Your task to perform on an android device: turn off improve location accuracy Image 0: 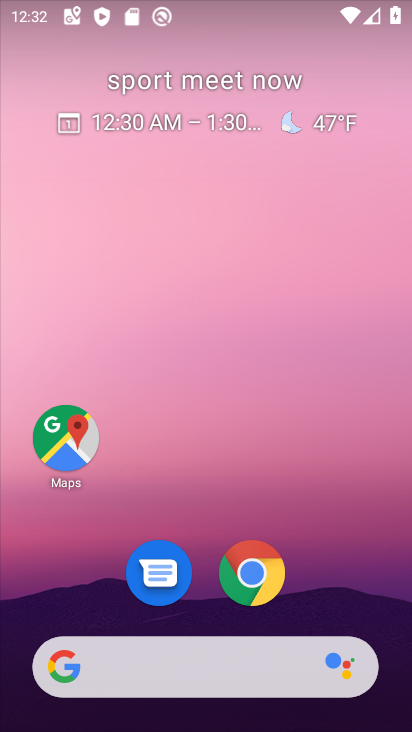
Step 0: drag from (207, 626) to (208, 187)
Your task to perform on an android device: turn off improve location accuracy Image 1: 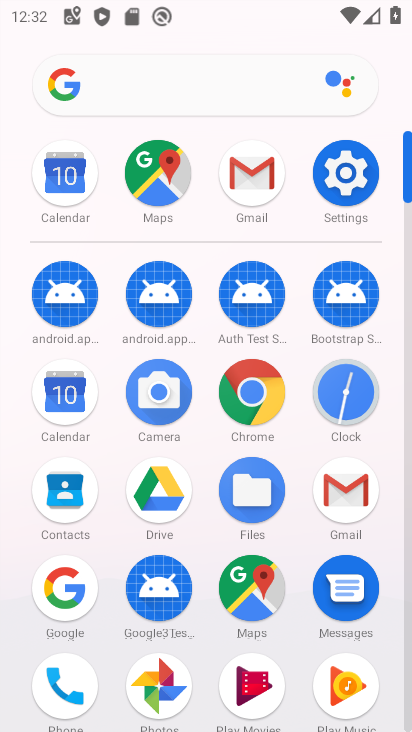
Step 1: click (340, 178)
Your task to perform on an android device: turn off improve location accuracy Image 2: 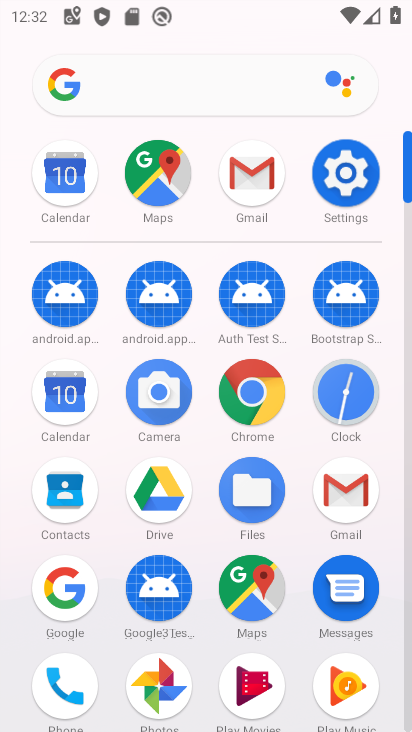
Step 2: click (340, 178)
Your task to perform on an android device: turn off improve location accuracy Image 3: 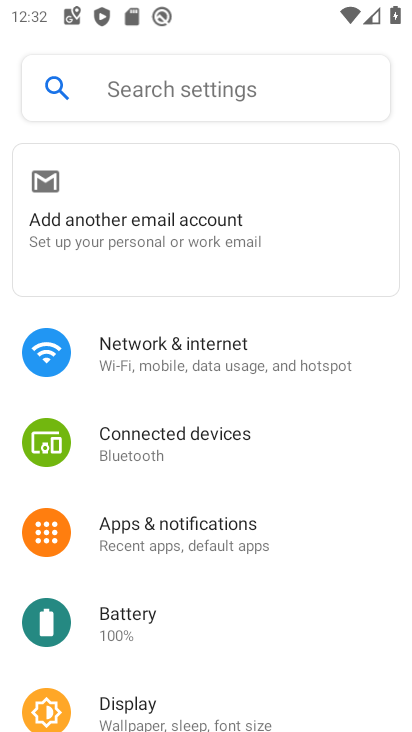
Step 3: drag from (215, 647) to (303, 235)
Your task to perform on an android device: turn off improve location accuracy Image 4: 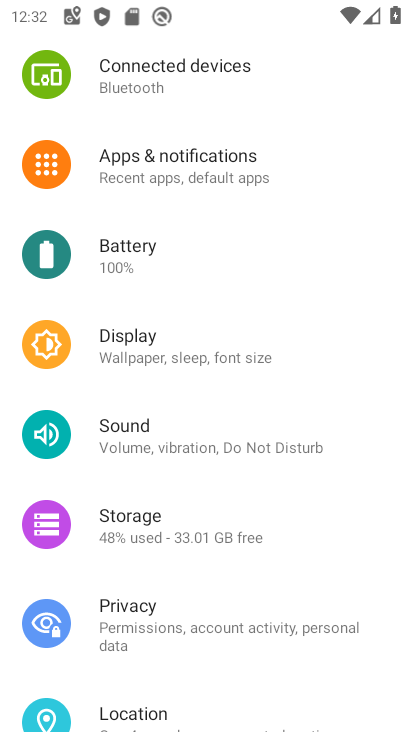
Step 4: drag from (165, 601) to (175, 405)
Your task to perform on an android device: turn off improve location accuracy Image 5: 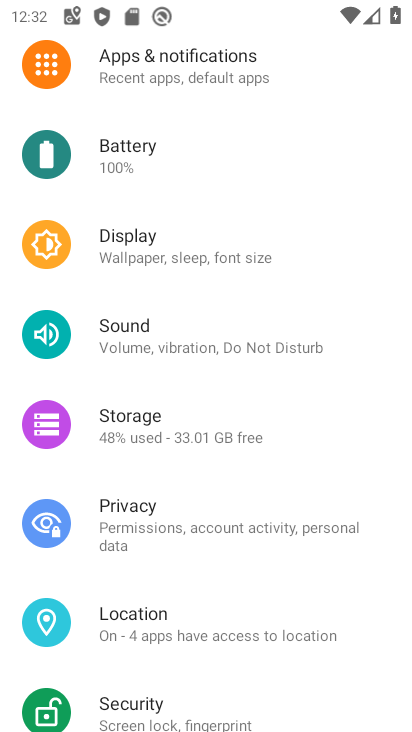
Step 5: drag from (162, 527) to (203, 315)
Your task to perform on an android device: turn off improve location accuracy Image 6: 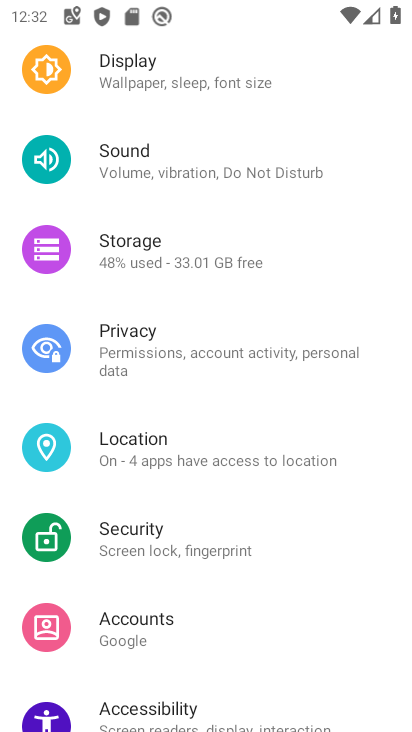
Step 6: click (147, 438)
Your task to perform on an android device: turn off improve location accuracy Image 7: 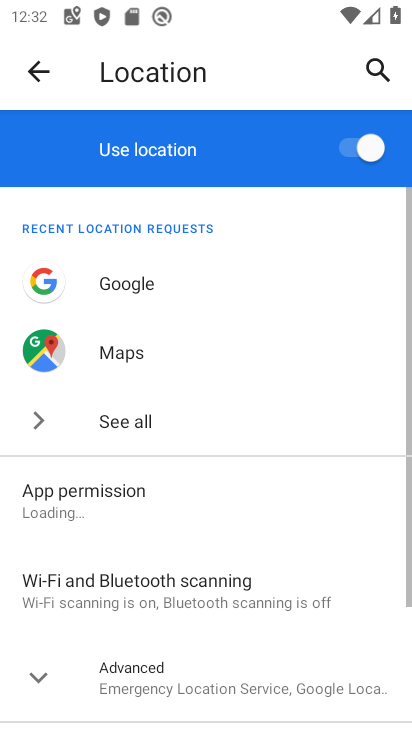
Step 7: drag from (268, 595) to (284, 303)
Your task to perform on an android device: turn off improve location accuracy Image 8: 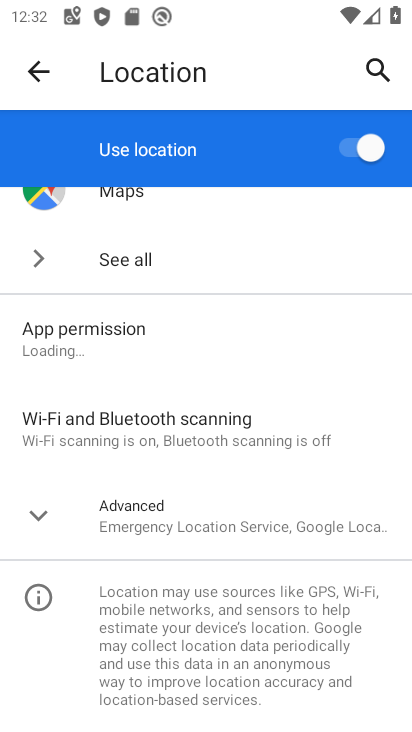
Step 8: click (145, 522)
Your task to perform on an android device: turn off improve location accuracy Image 9: 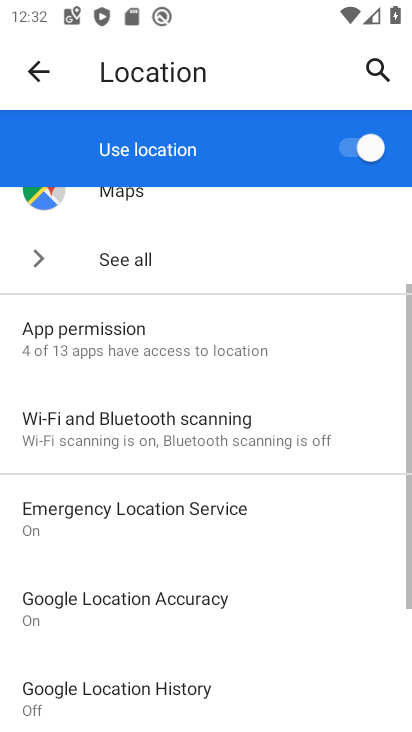
Step 9: drag from (186, 522) to (247, 215)
Your task to perform on an android device: turn off improve location accuracy Image 10: 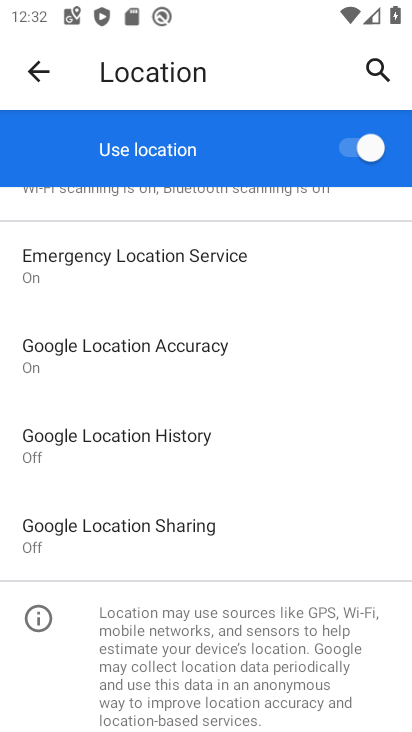
Step 10: click (185, 359)
Your task to perform on an android device: turn off improve location accuracy Image 11: 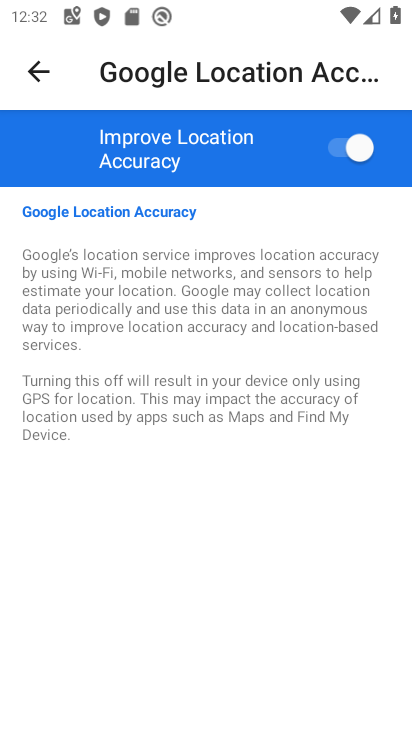
Step 11: click (346, 153)
Your task to perform on an android device: turn off improve location accuracy Image 12: 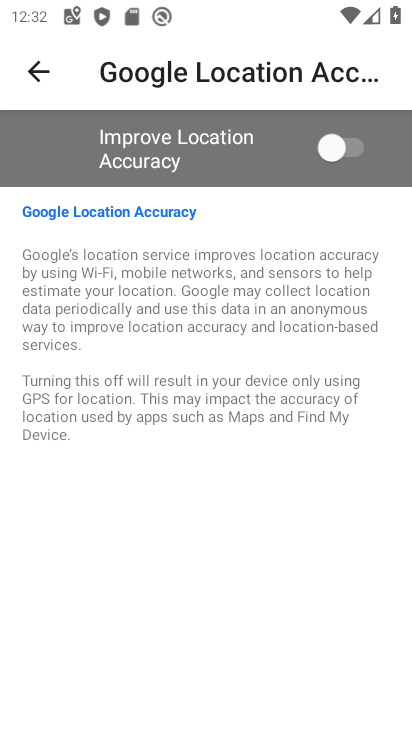
Step 12: task complete